Your task to perform on an android device: turn off improve location accuracy Image 0: 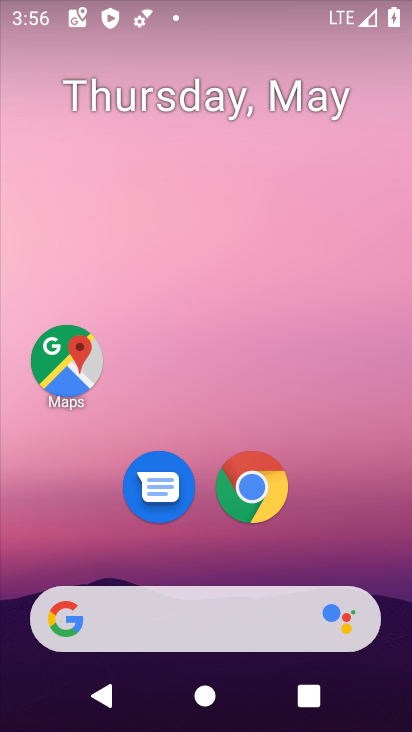
Step 0: drag from (223, 545) to (350, 12)
Your task to perform on an android device: turn off improve location accuracy Image 1: 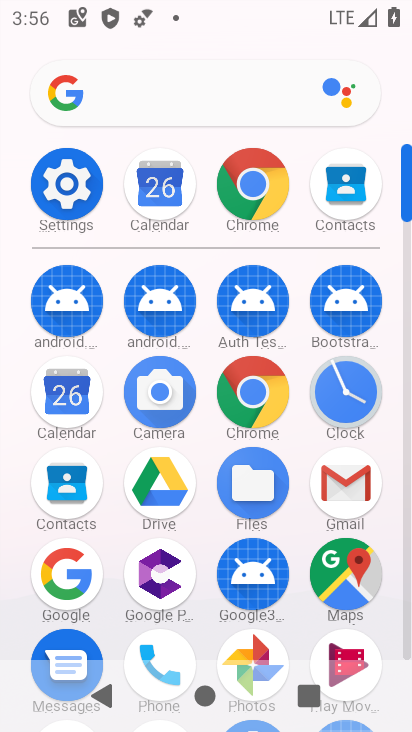
Step 1: click (76, 208)
Your task to perform on an android device: turn off improve location accuracy Image 2: 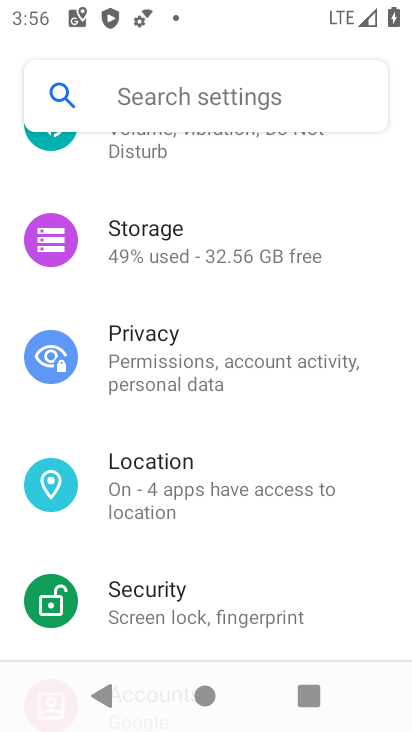
Step 2: drag from (222, 281) to (218, 688)
Your task to perform on an android device: turn off improve location accuracy Image 3: 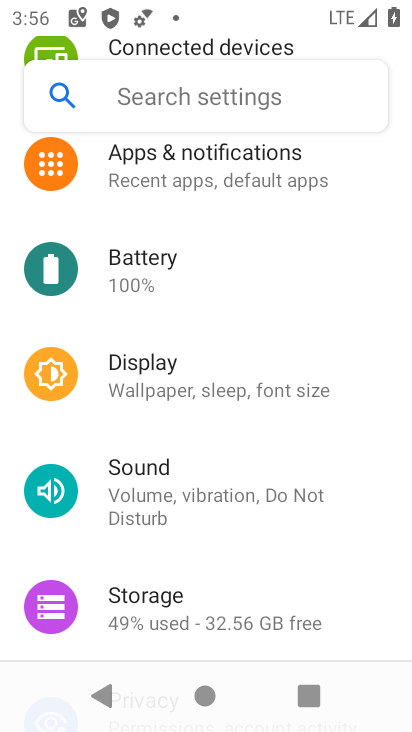
Step 3: drag from (199, 304) to (190, 729)
Your task to perform on an android device: turn off improve location accuracy Image 4: 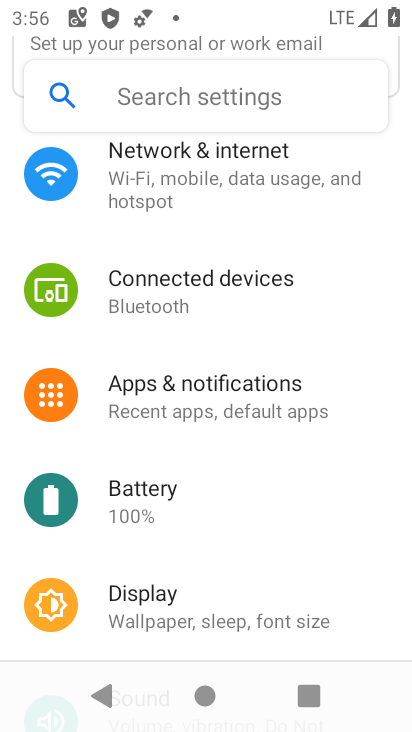
Step 4: drag from (224, 276) to (233, 71)
Your task to perform on an android device: turn off improve location accuracy Image 5: 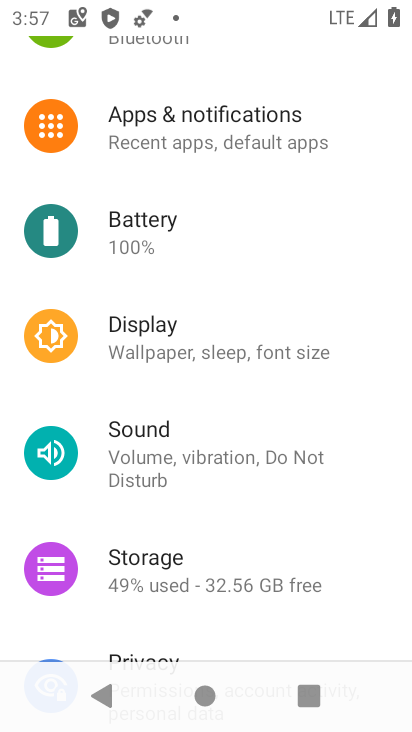
Step 5: drag from (237, 439) to (265, 81)
Your task to perform on an android device: turn off improve location accuracy Image 6: 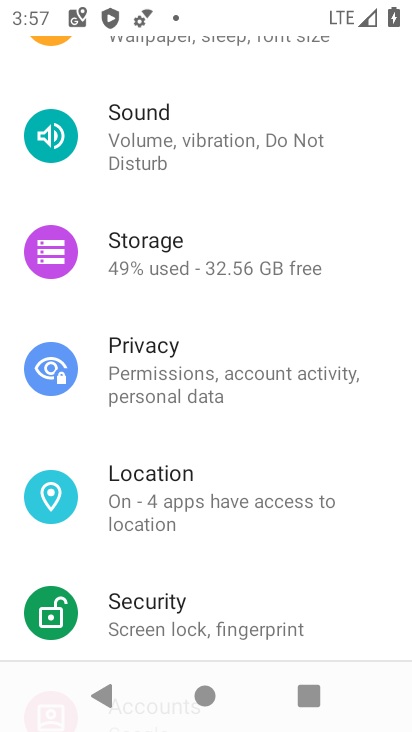
Step 6: click (259, 500)
Your task to perform on an android device: turn off improve location accuracy Image 7: 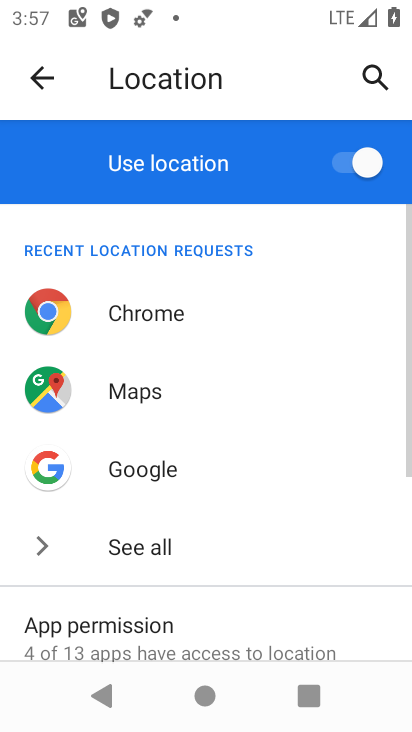
Step 7: drag from (241, 563) to (288, 183)
Your task to perform on an android device: turn off improve location accuracy Image 8: 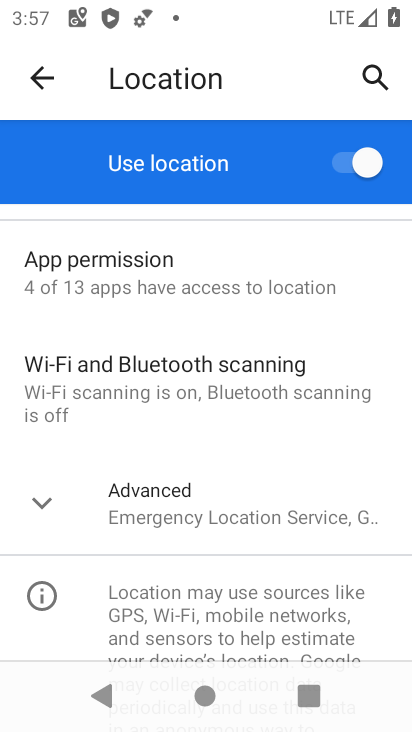
Step 8: click (231, 503)
Your task to perform on an android device: turn off improve location accuracy Image 9: 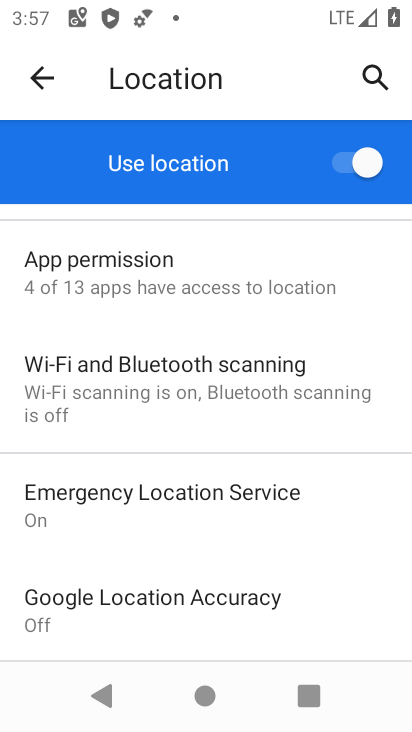
Step 9: drag from (246, 411) to (288, 152)
Your task to perform on an android device: turn off improve location accuracy Image 10: 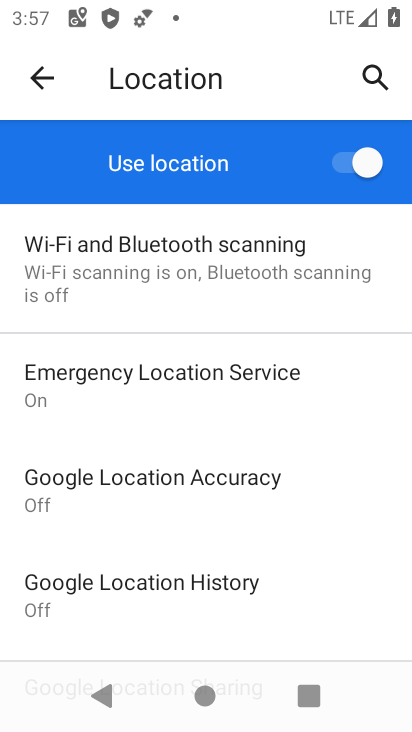
Step 10: click (223, 499)
Your task to perform on an android device: turn off improve location accuracy Image 11: 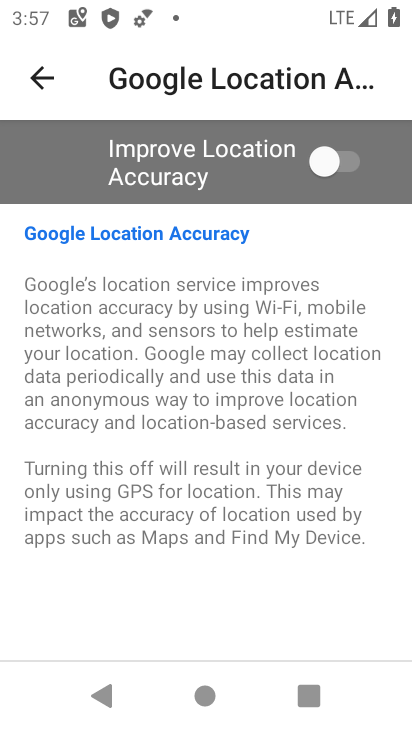
Step 11: task complete